Your task to perform on an android device: Search for a coffee table on Crate & Barrel Image 0: 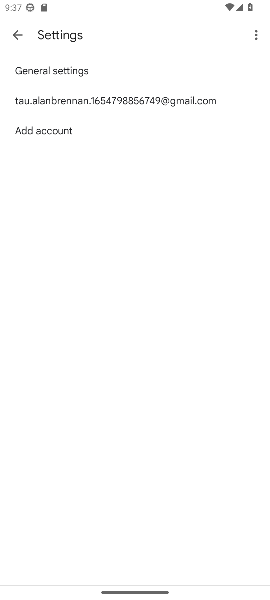
Step 0: press home button
Your task to perform on an android device: Search for a coffee table on Crate & Barrel Image 1: 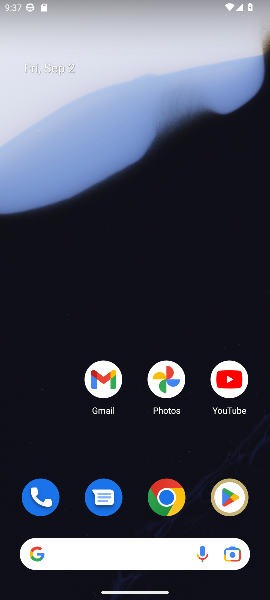
Step 1: drag from (131, 444) to (119, 69)
Your task to perform on an android device: Search for a coffee table on Crate & Barrel Image 2: 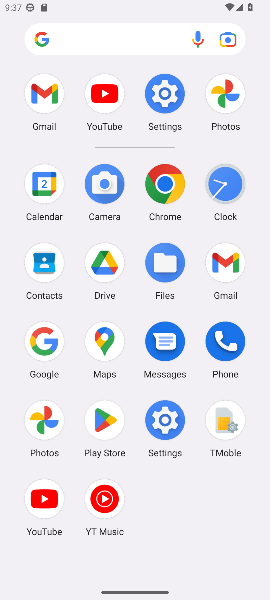
Step 2: click (43, 336)
Your task to perform on an android device: Search for a coffee table on Crate & Barrel Image 3: 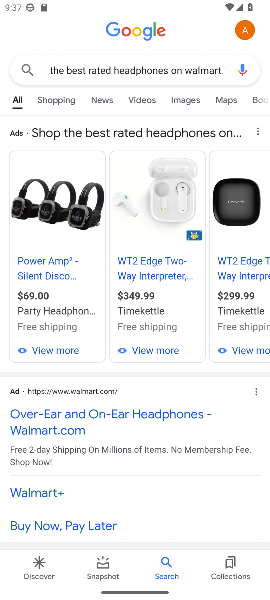
Step 3: click (223, 69)
Your task to perform on an android device: Search for a coffee table on Crate & Barrel Image 4: 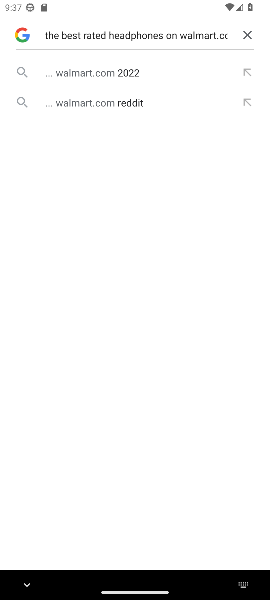
Step 4: click (251, 32)
Your task to perform on an android device: Search for a coffee table on Crate & Barrel Image 5: 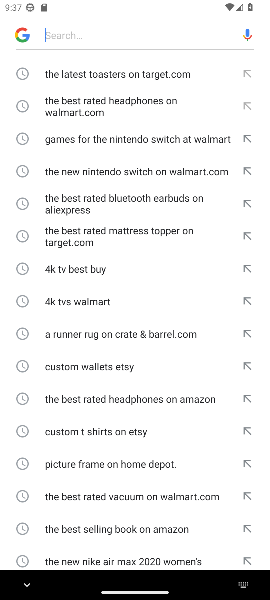
Step 5: click (88, 32)
Your task to perform on an android device: Search for a coffee table on Crate & Barrel Image 6: 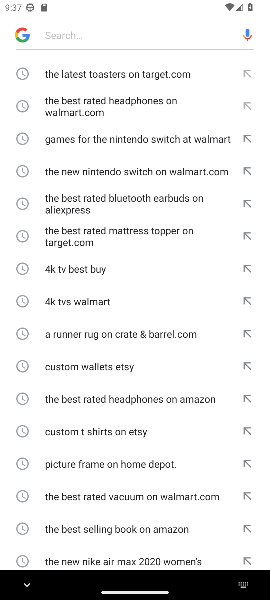
Step 6: type "for a coffee table on Crate & Barrel"
Your task to perform on an android device: Search for a coffee table on Crate & Barrel Image 7: 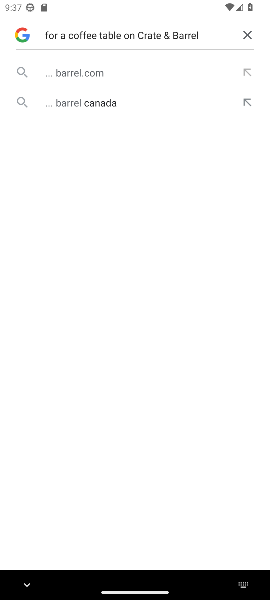
Step 7: click (92, 68)
Your task to perform on an android device: Search for a coffee table on Crate & Barrel Image 8: 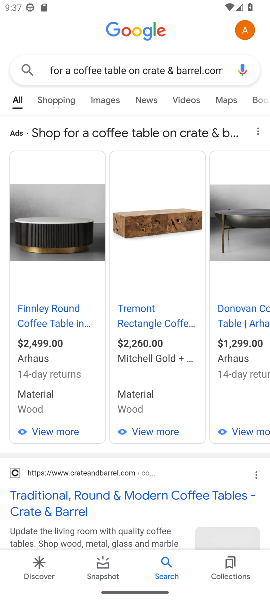
Step 8: task complete